Your task to perform on an android device: install app "Yahoo Mail" Image 0: 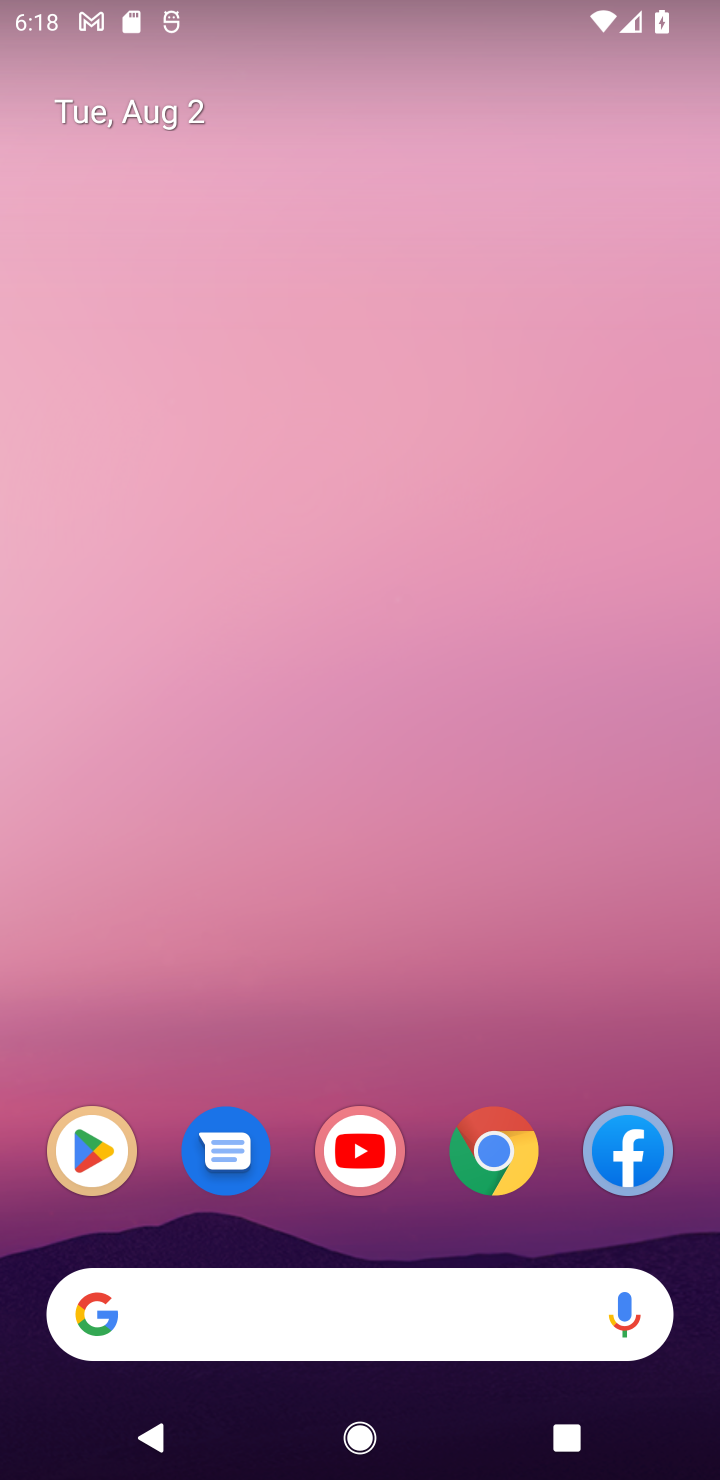
Step 0: drag from (355, 1302) to (346, 424)
Your task to perform on an android device: install app "Yahoo Mail" Image 1: 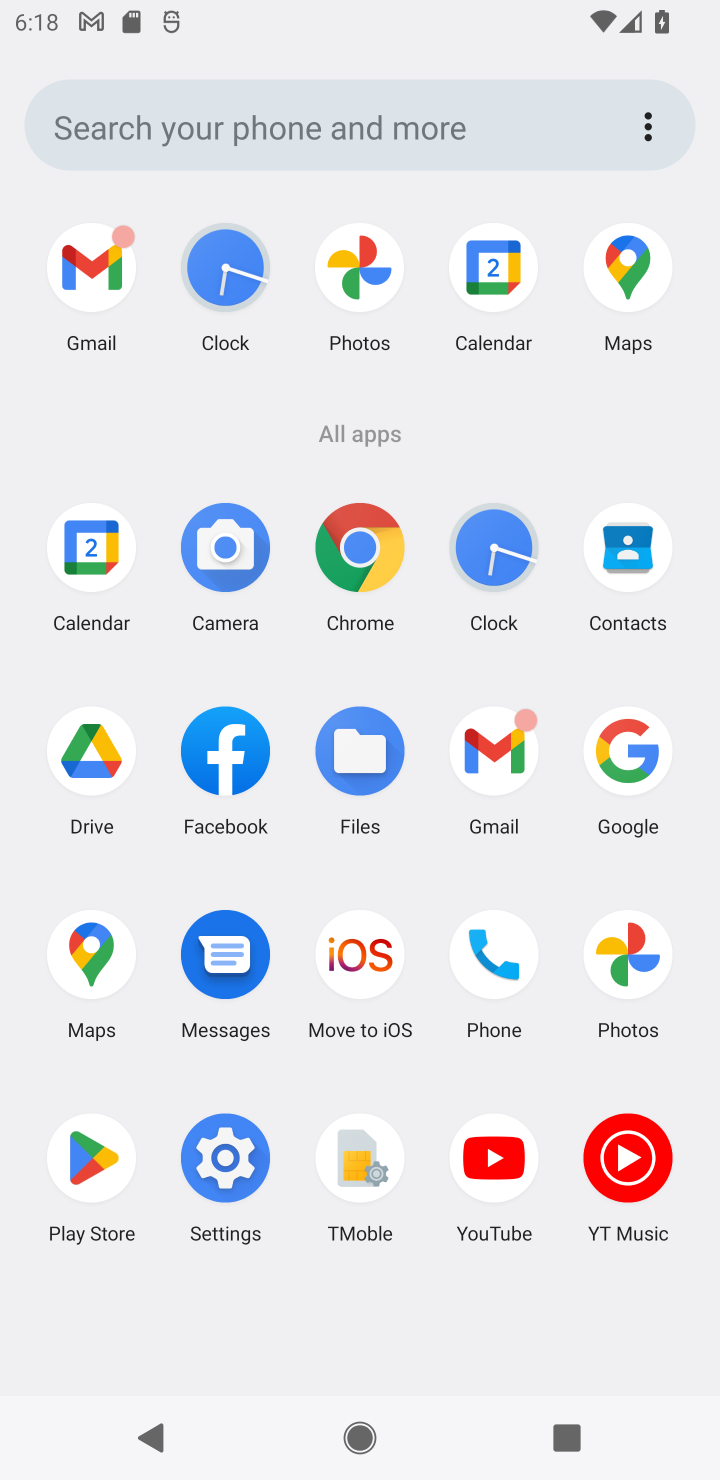
Step 1: click (100, 1171)
Your task to perform on an android device: install app "Yahoo Mail" Image 2: 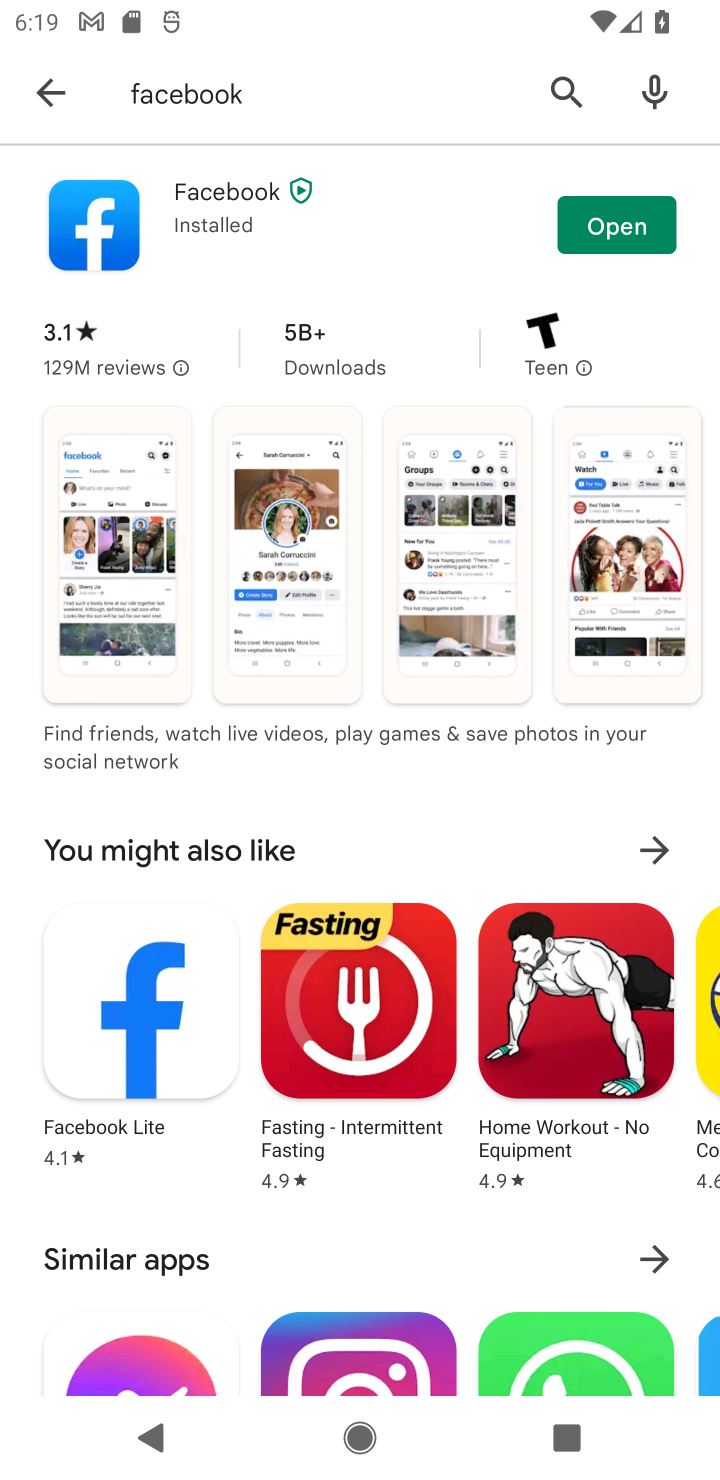
Step 2: click (557, 103)
Your task to perform on an android device: install app "Yahoo Mail" Image 3: 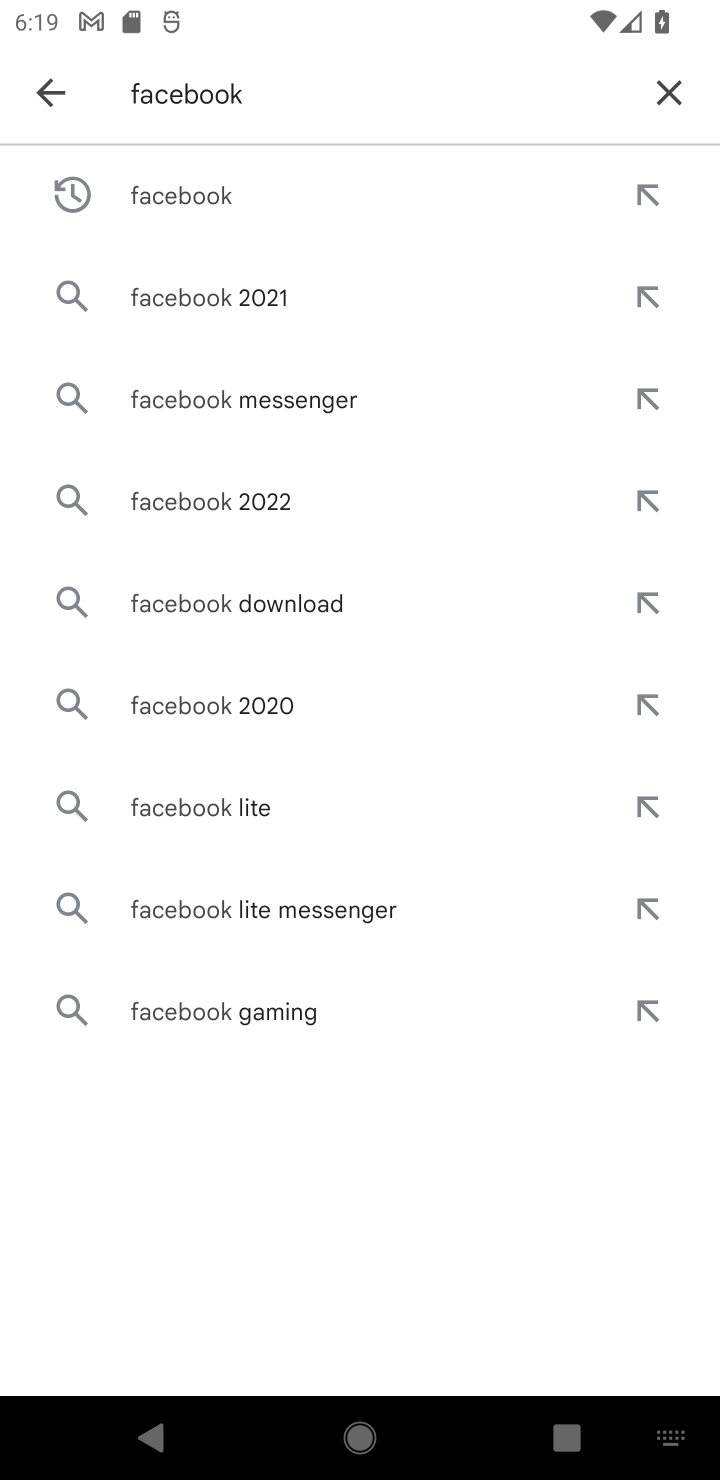
Step 3: click (664, 96)
Your task to perform on an android device: install app "Yahoo Mail" Image 4: 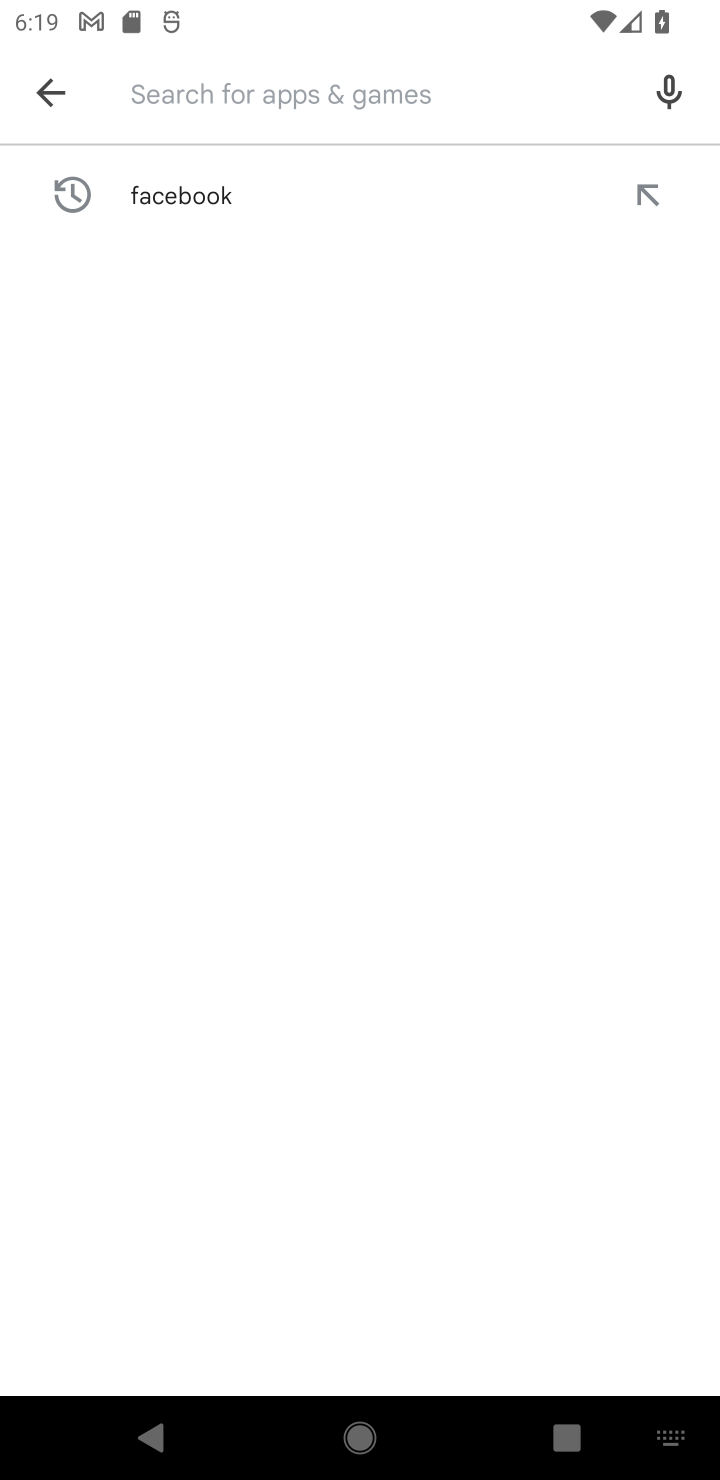
Step 4: type "yahoo mail"
Your task to perform on an android device: install app "Yahoo Mail" Image 5: 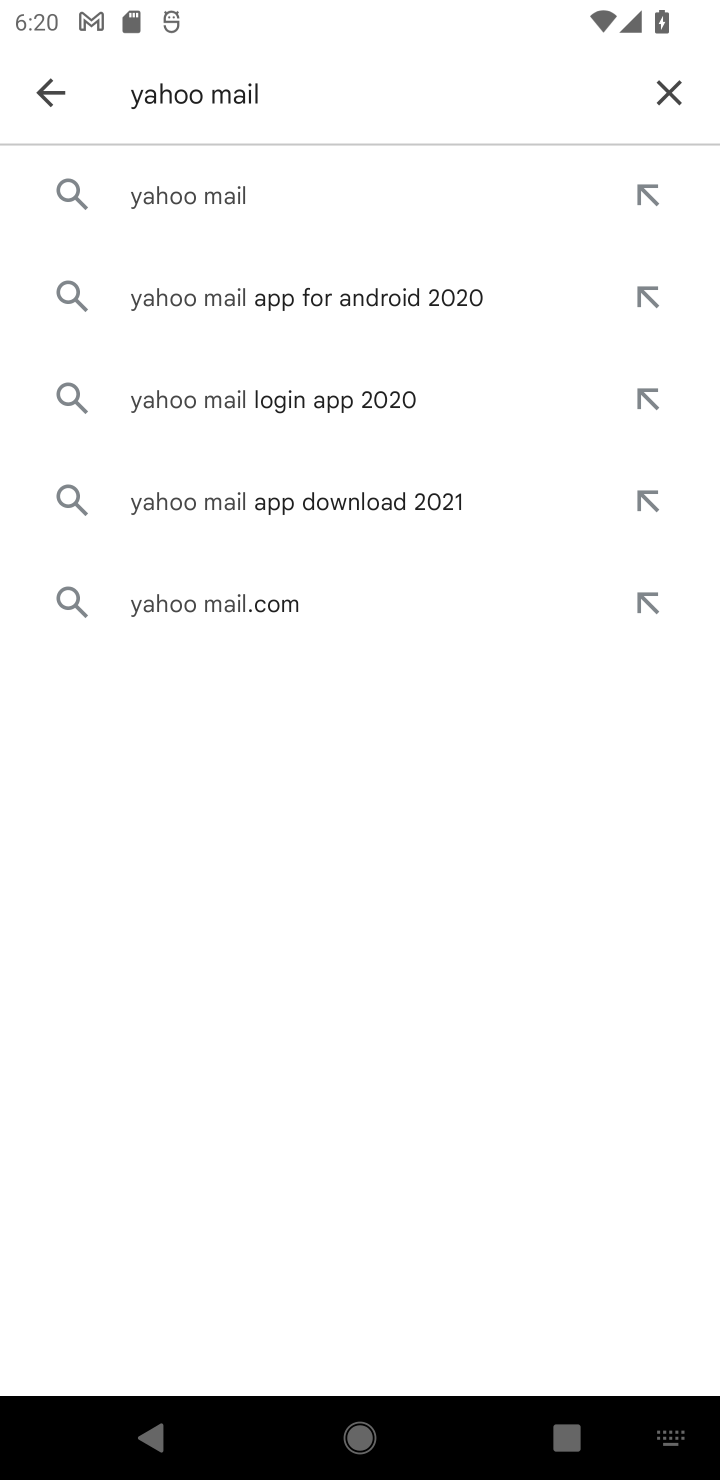
Step 5: click (192, 197)
Your task to perform on an android device: install app "Yahoo Mail" Image 6: 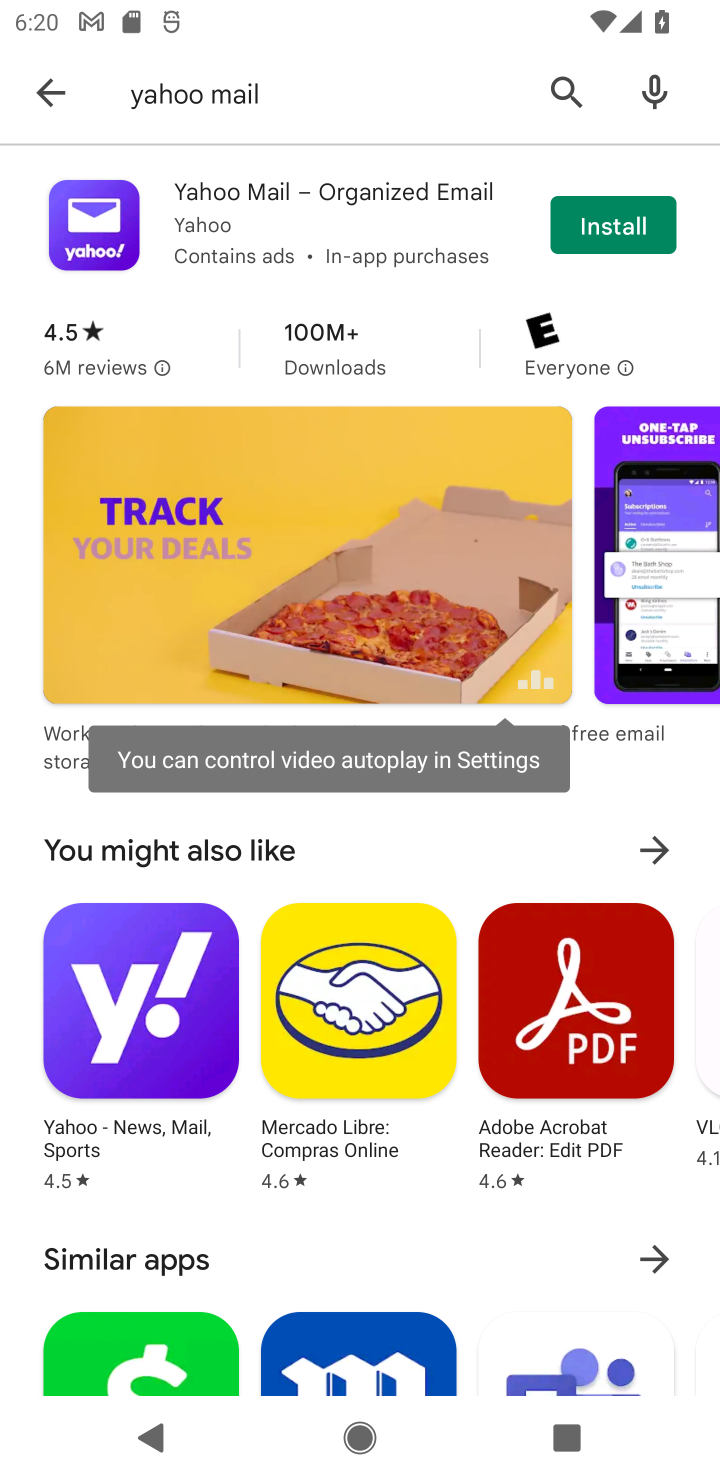
Step 6: click (616, 235)
Your task to perform on an android device: install app "Yahoo Mail" Image 7: 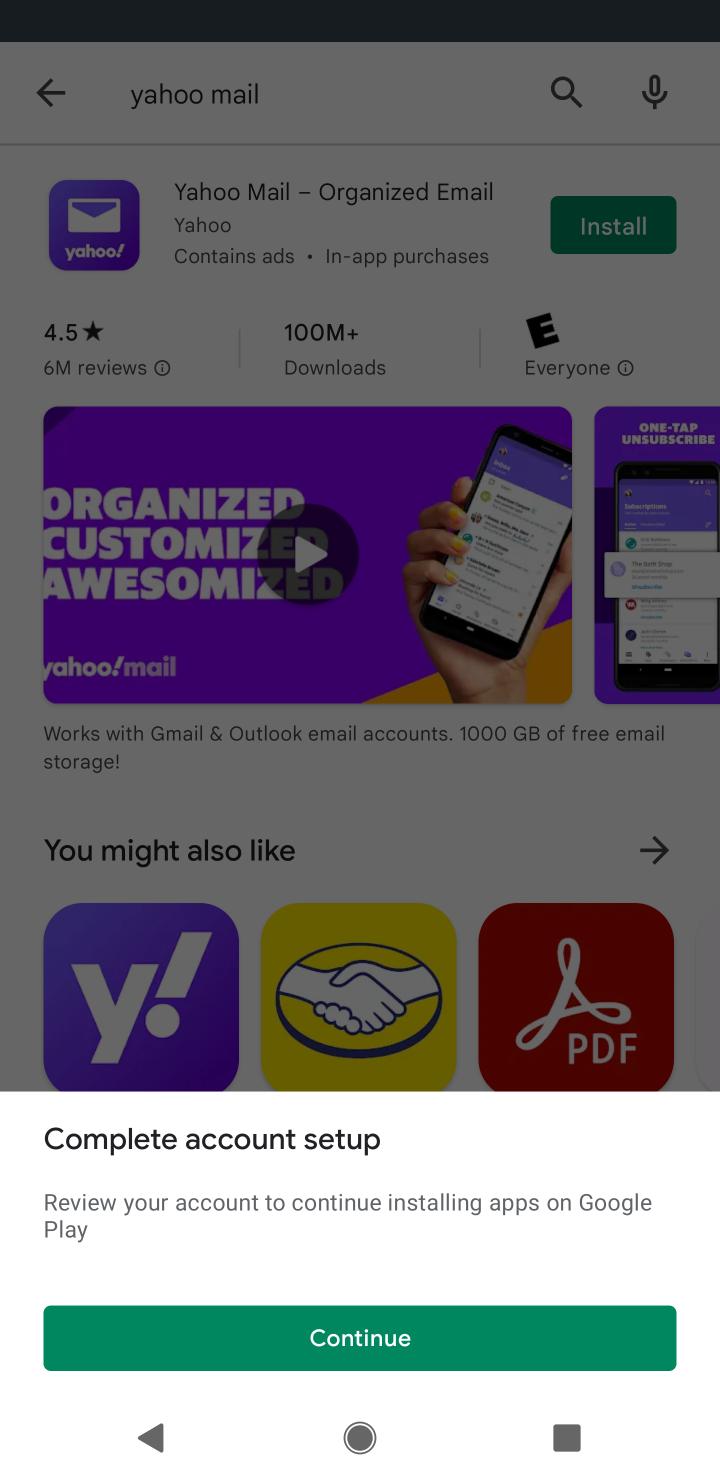
Step 7: click (335, 1335)
Your task to perform on an android device: install app "Yahoo Mail" Image 8: 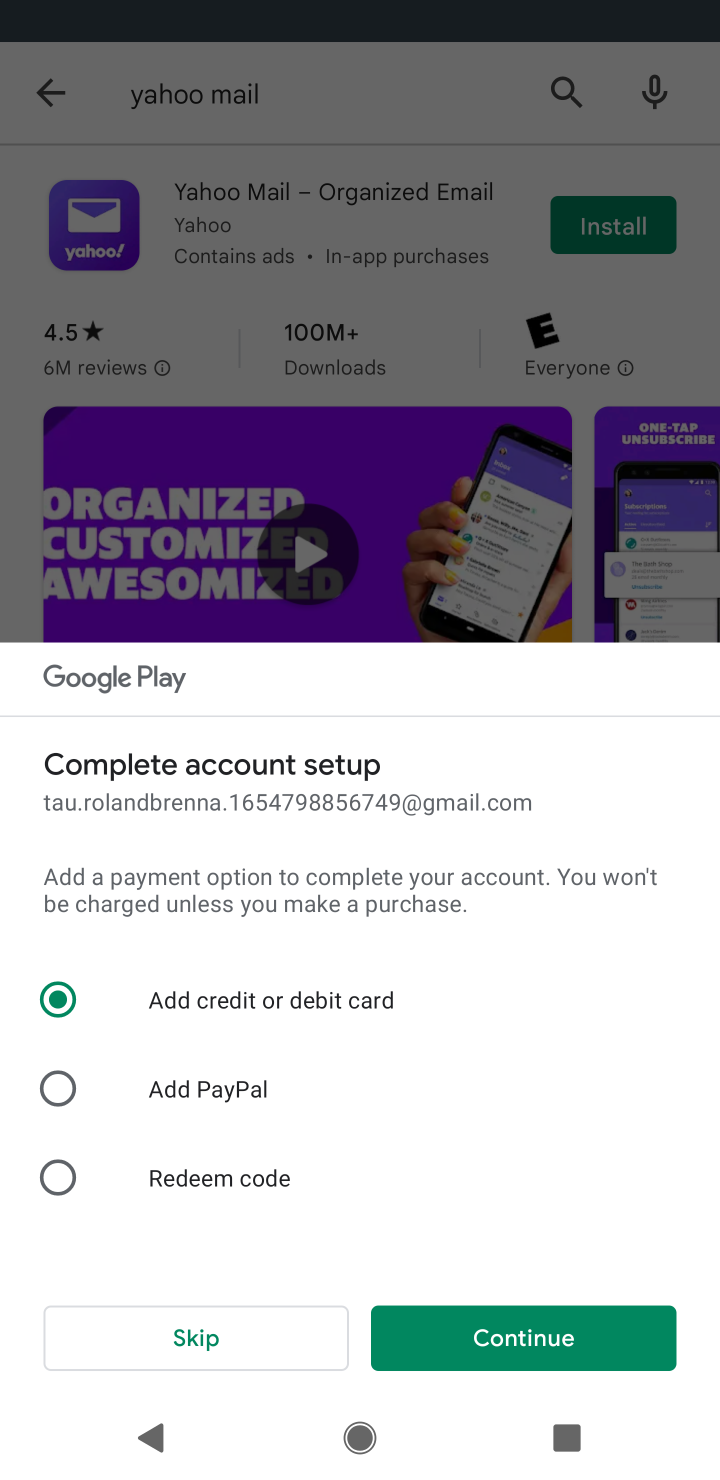
Step 8: task complete